Your task to perform on an android device: Open Youtube and go to the subscriptions tab Image 0: 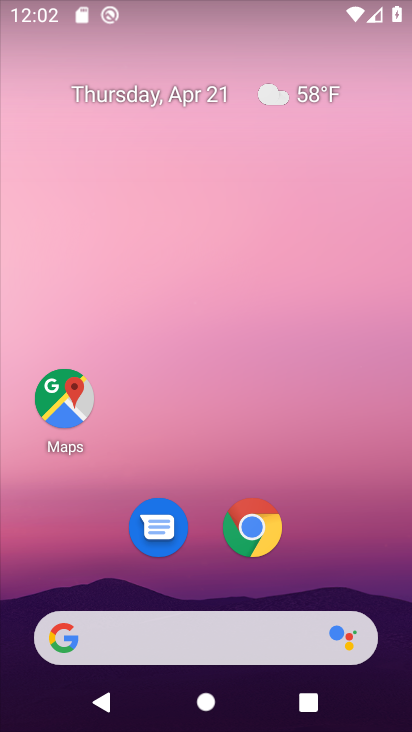
Step 0: click (280, 132)
Your task to perform on an android device: Open Youtube and go to the subscriptions tab Image 1: 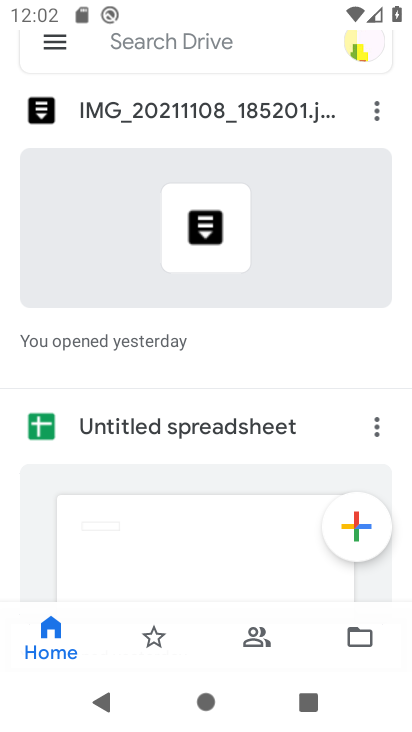
Step 1: press home button
Your task to perform on an android device: Open Youtube and go to the subscriptions tab Image 2: 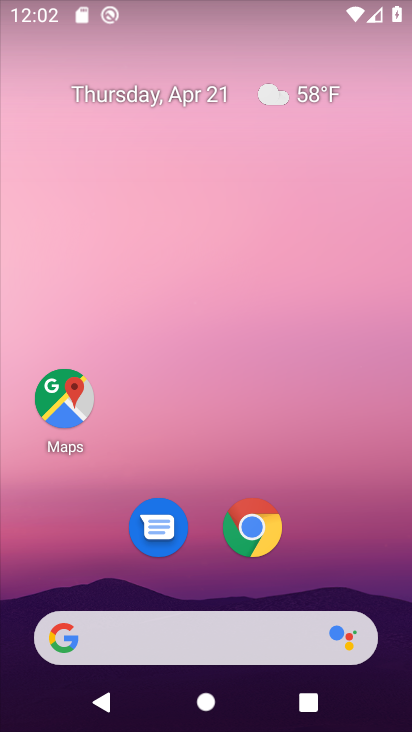
Step 2: drag from (296, 523) to (312, 217)
Your task to perform on an android device: Open Youtube and go to the subscriptions tab Image 3: 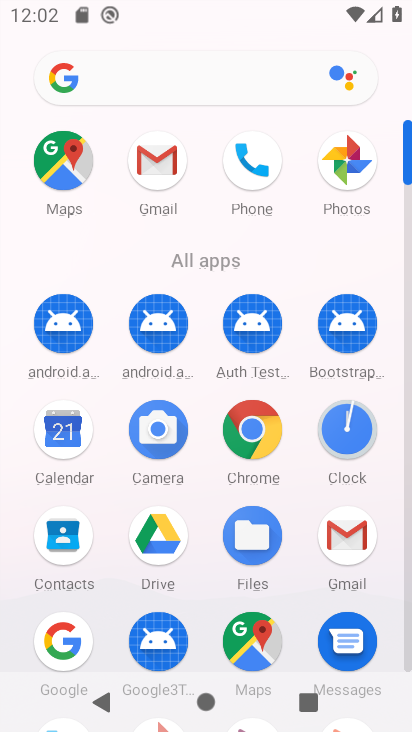
Step 3: drag from (296, 627) to (297, 344)
Your task to perform on an android device: Open Youtube and go to the subscriptions tab Image 4: 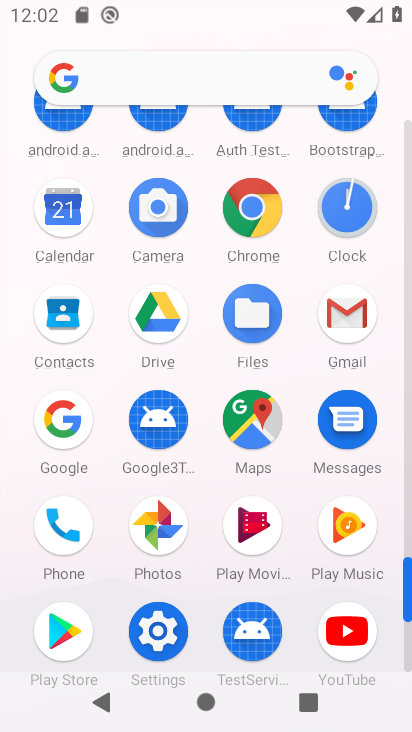
Step 4: click (341, 651)
Your task to perform on an android device: Open Youtube and go to the subscriptions tab Image 5: 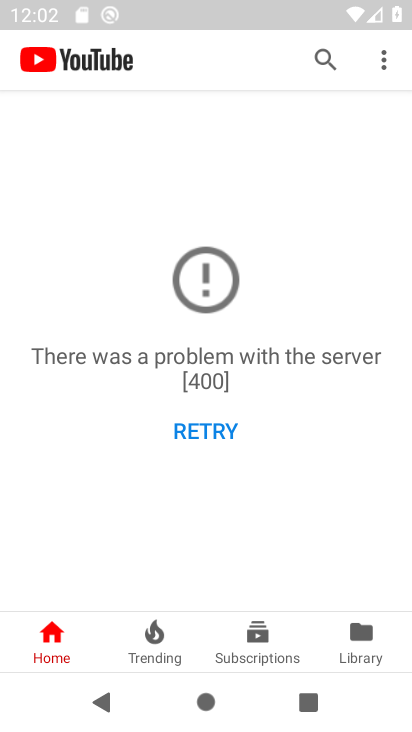
Step 5: click (250, 637)
Your task to perform on an android device: Open Youtube and go to the subscriptions tab Image 6: 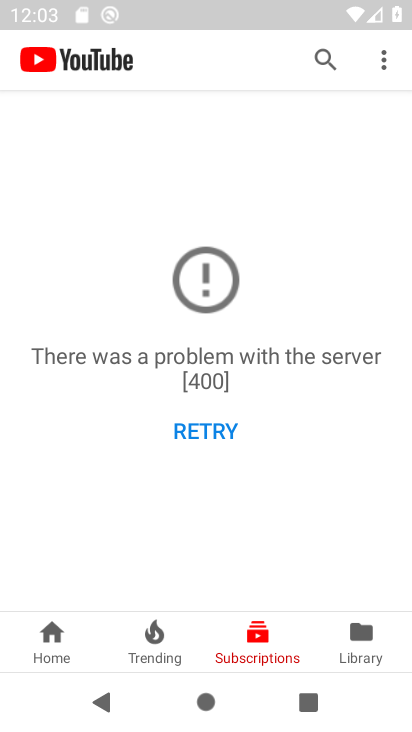
Step 6: task complete